Your task to perform on an android device: open app "Walmart Shopping & Grocery" (install if not already installed) and go to login screen Image 0: 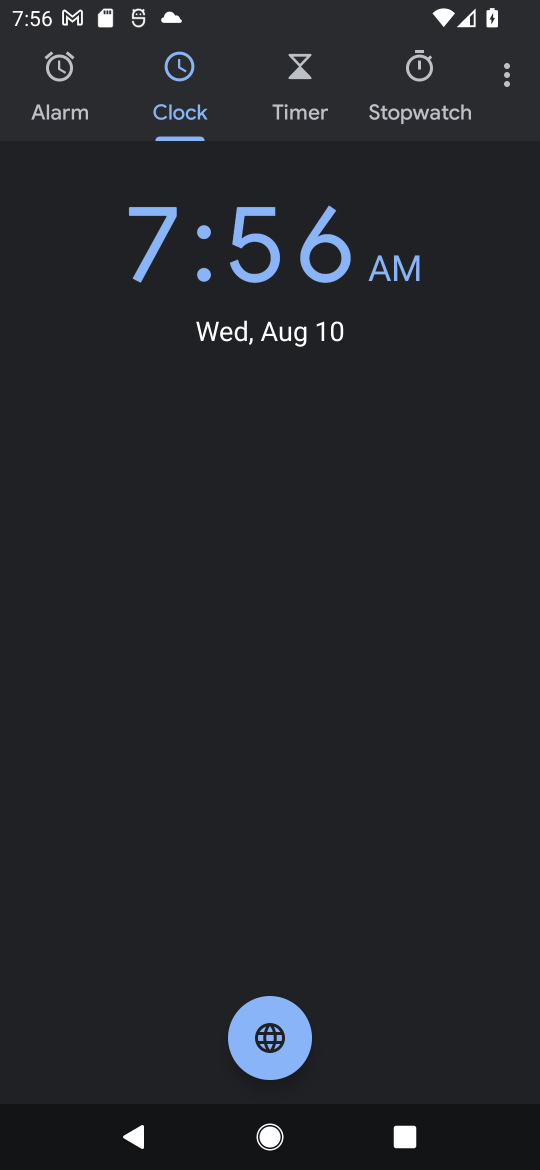
Step 0: drag from (499, 795) to (473, 560)
Your task to perform on an android device: open app "Walmart Shopping & Grocery" (install if not already installed) and go to login screen Image 1: 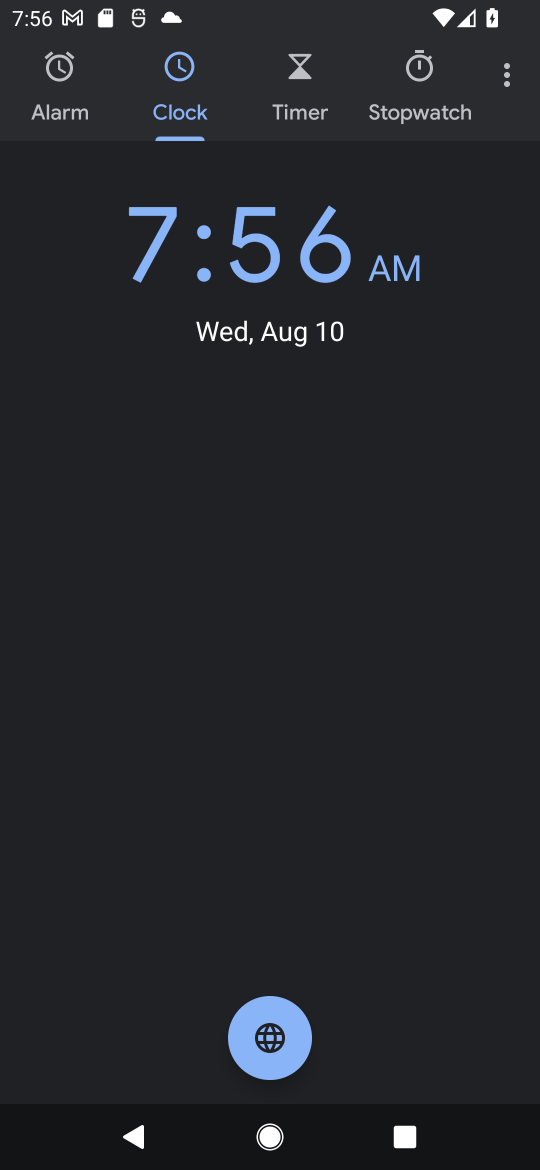
Step 1: press home button
Your task to perform on an android device: open app "Walmart Shopping & Grocery" (install if not already installed) and go to login screen Image 2: 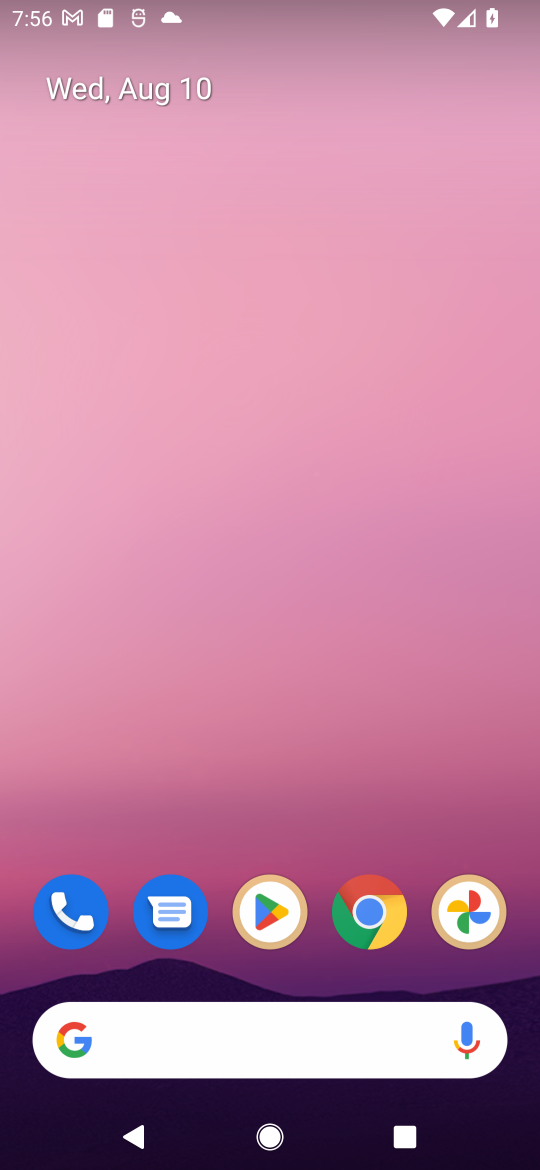
Step 2: drag from (527, 1024) to (290, 137)
Your task to perform on an android device: open app "Walmart Shopping & Grocery" (install if not already installed) and go to login screen Image 3: 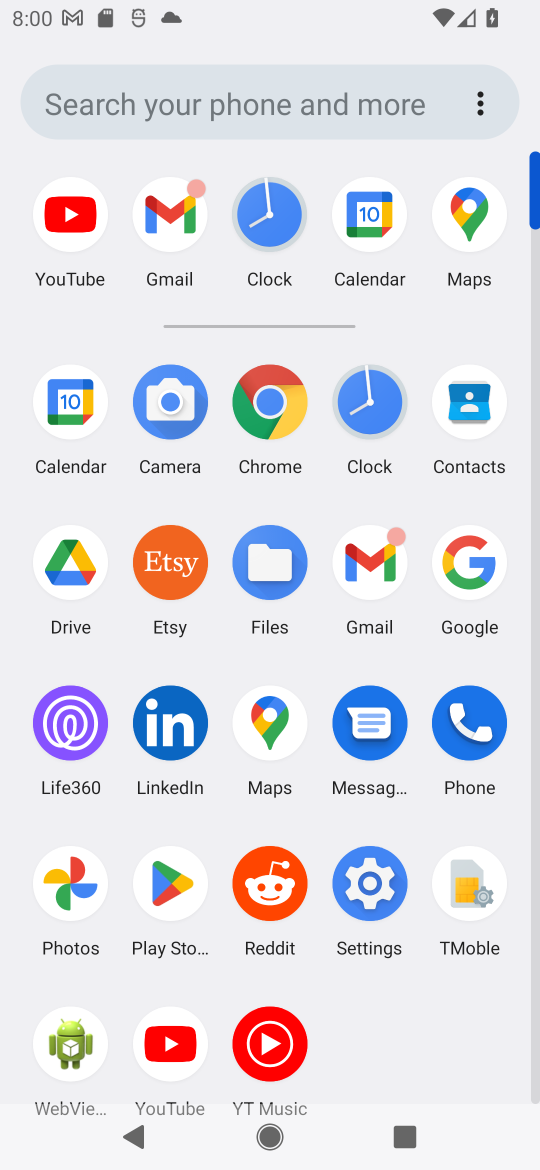
Step 3: click (150, 887)
Your task to perform on an android device: open app "Walmart Shopping & Grocery" (install if not already installed) and go to login screen Image 4: 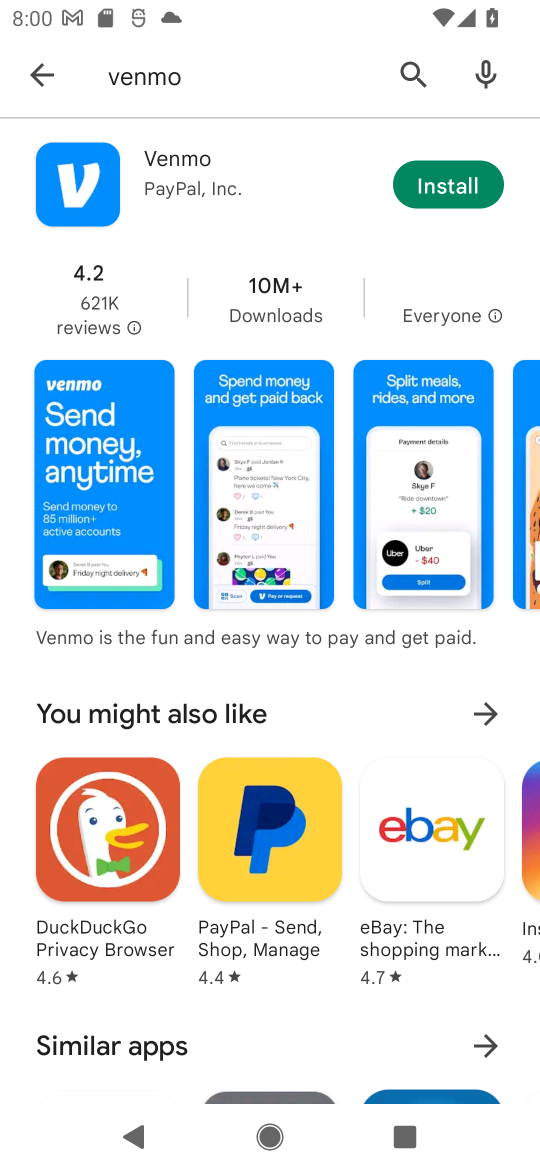
Step 4: press back button
Your task to perform on an android device: open app "Walmart Shopping & Grocery" (install if not already installed) and go to login screen Image 5: 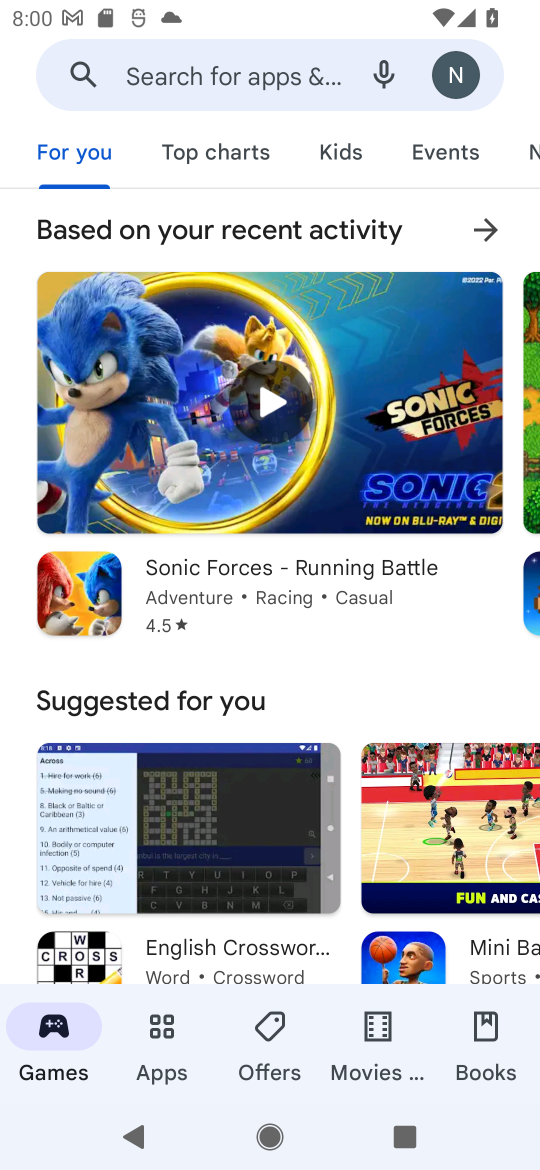
Step 5: click (195, 83)
Your task to perform on an android device: open app "Walmart Shopping & Grocery" (install if not already installed) and go to login screen Image 6: 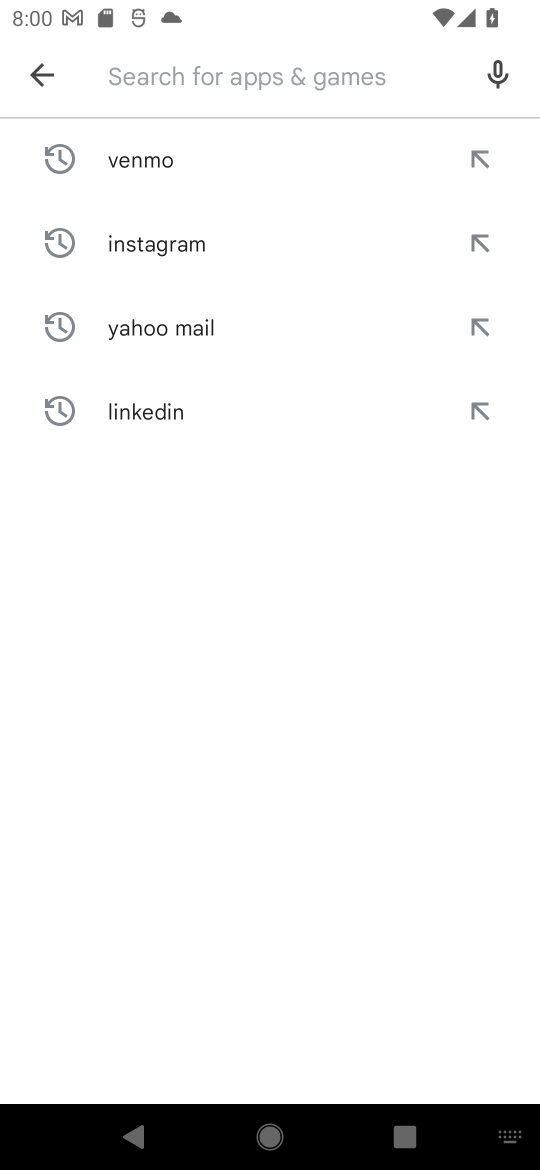
Step 6: type "Walmart Shopping & Grocery"
Your task to perform on an android device: open app "Walmart Shopping & Grocery" (install if not already installed) and go to login screen Image 7: 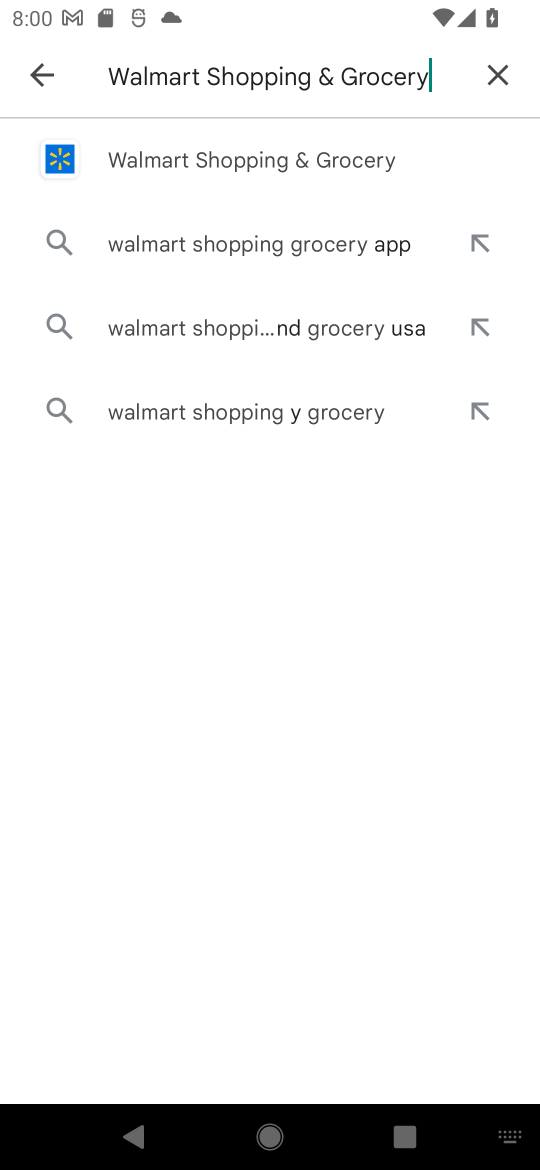
Step 7: click (318, 174)
Your task to perform on an android device: open app "Walmart Shopping & Grocery" (install if not already installed) and go to login screen Image 8: 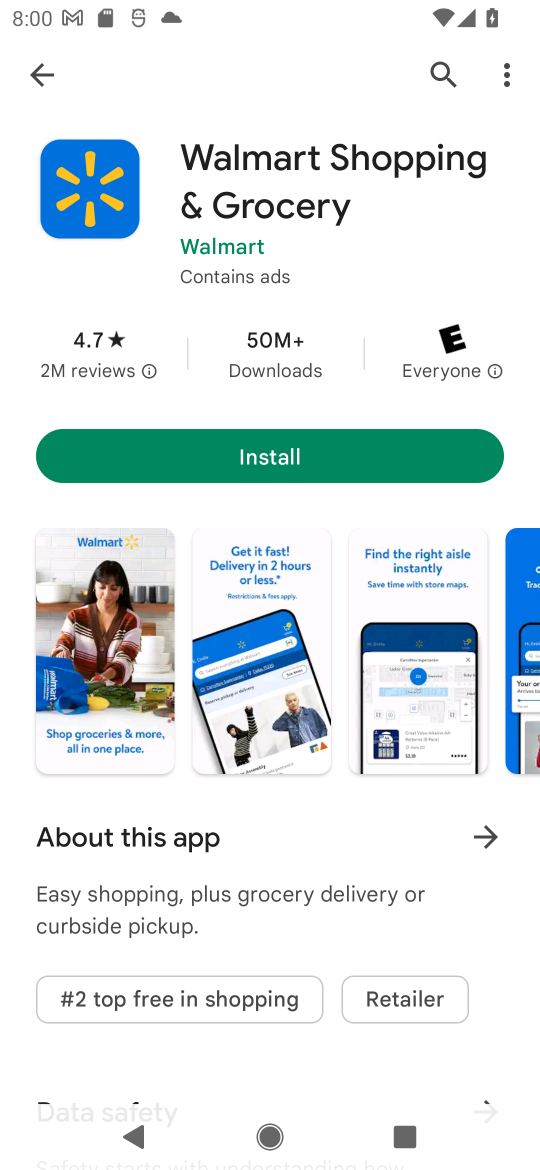
Step 8: task complete